Your task to perform on an android device: change notification settings in the gmail app Image 0: 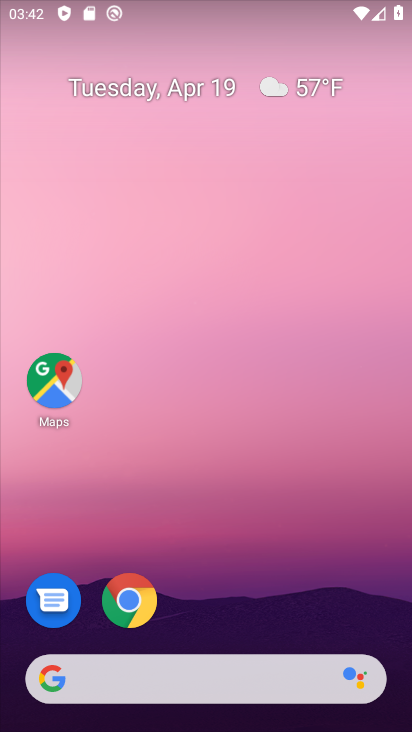
Step 0: drag from (348, 619) to (185, 56)
Your task to perform on an android device: change notification settings in the gmail app Image 1: 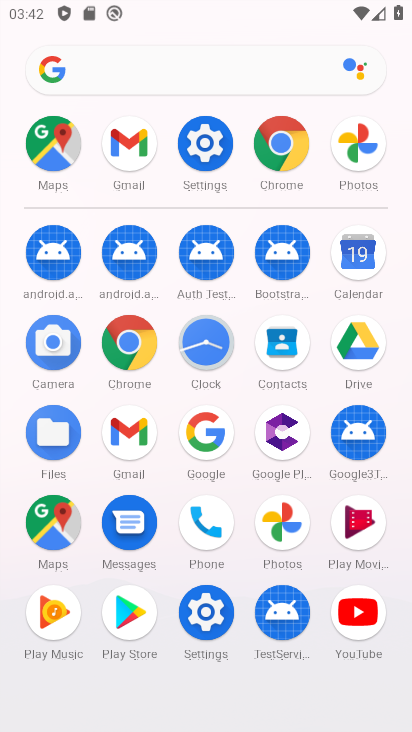
Step 1: click (142, 150)
Your task to perform on an android device: change notification settings in the gmail app Image 2: 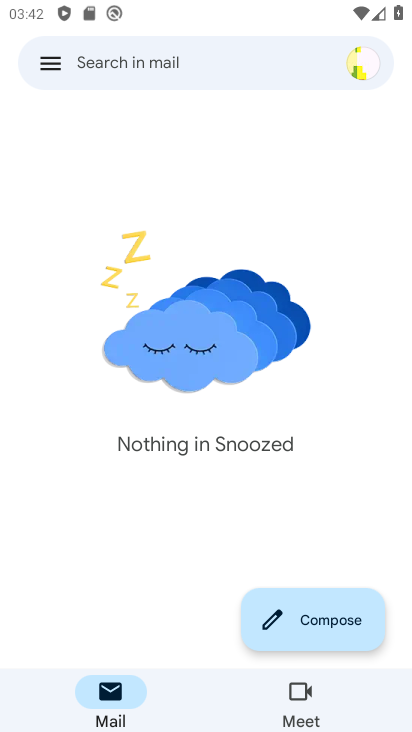
Step 2: click (55, 60)
Your task to perform on an android device: change notification settings in the gmail app Image 3: 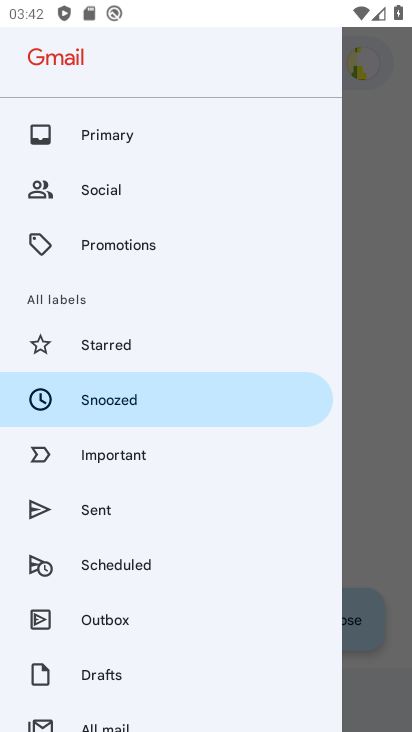
Step 3: drag from (286, 672) to (194, 193)
Your task to perform on an android device: change notification settings in the gmail app Image 4: 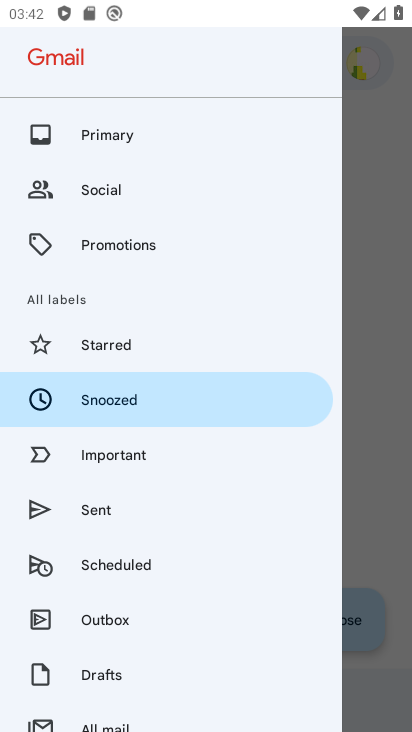
Step 4: drag from (109, 667) to (129, 186)
Your task to perform on an android device: change notification settings in the gmail app Image 5: 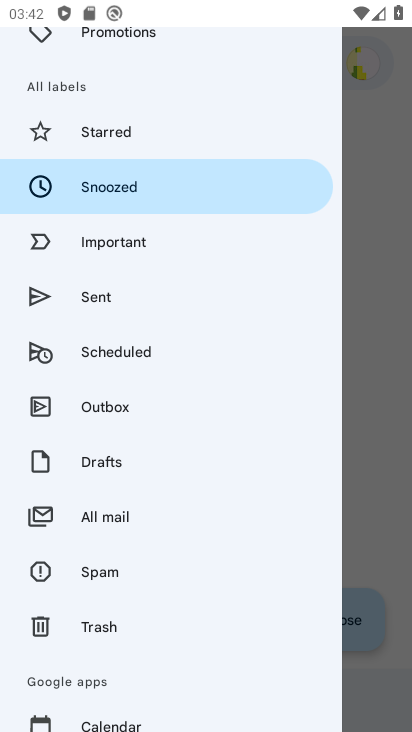
Step 5: drag from (216, 606) to (212, 137)
Your task to perform on an android device: change notification settings in the gmail app Image 6: 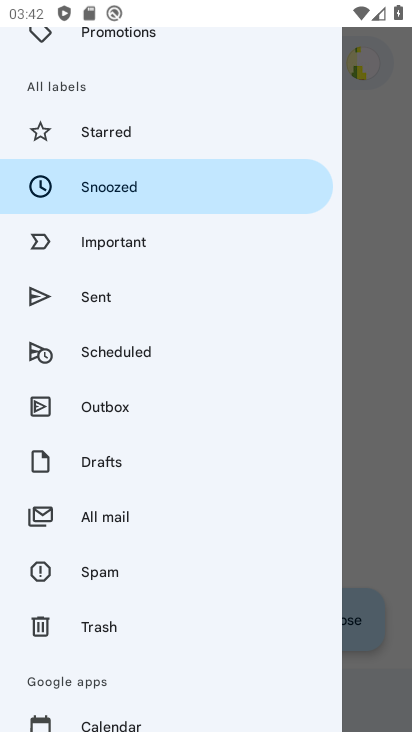
Step 6: drag from (116, 608) to (58, 156)
Your task to perform on an android device: change notification settings in the gmail app Image 7: 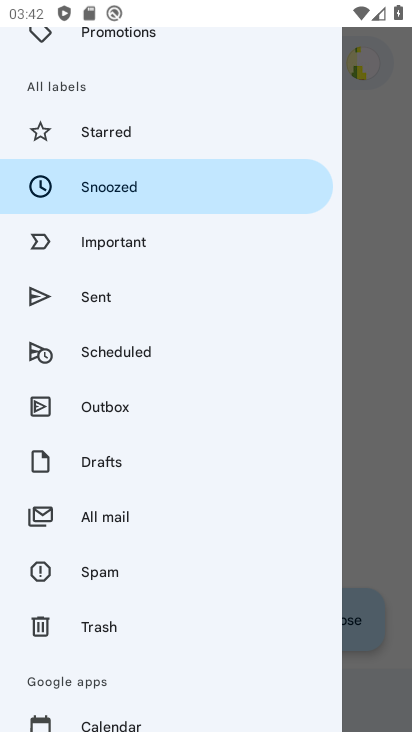
Step 7: drag from (121, 629) to (146, 161)
Your task to perform on an android device: change notification settings in the gmail app Image 8: 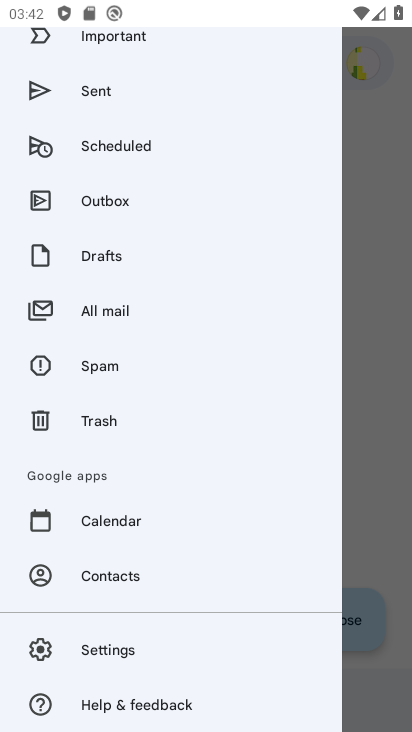
Step 8: click (151, 654)
Your task to perform on an android device: change notification settings in the gmail app Image 9: 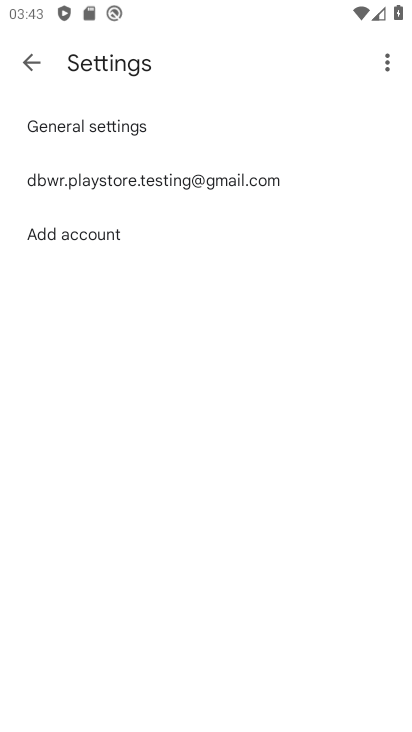
Step 9: click (249, 175)
Your task to perform on an android device: change notification settings in the gmail app Image 10: 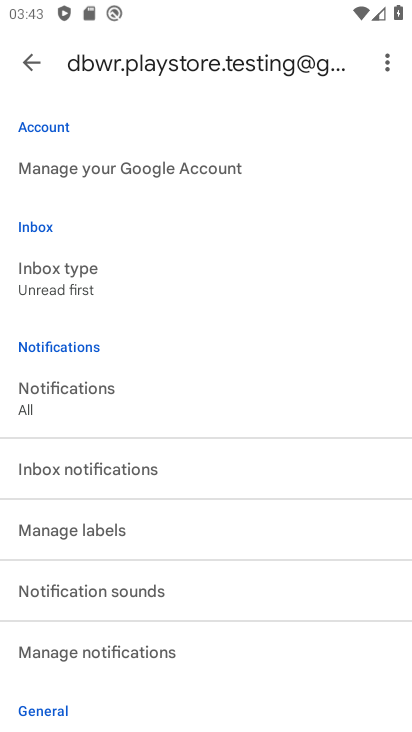
Step 10: drag from (296, 653) to (310, 322)
Your task to perform on an android device: change notification settings in the gmail app Image 11: 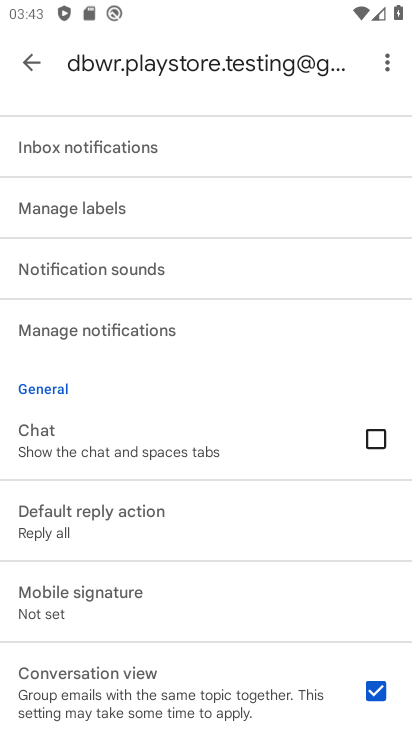
Step 11: click (238, 330)
Your task to perform on an android device: change notification settings in the gmail app Image 12: 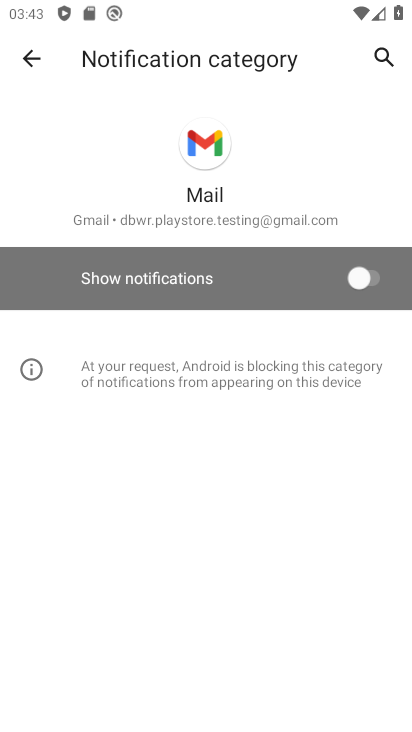
Step 12: click (374, 288)
Your task to perform on an android device: change notification settings in the gmail app Image 13: 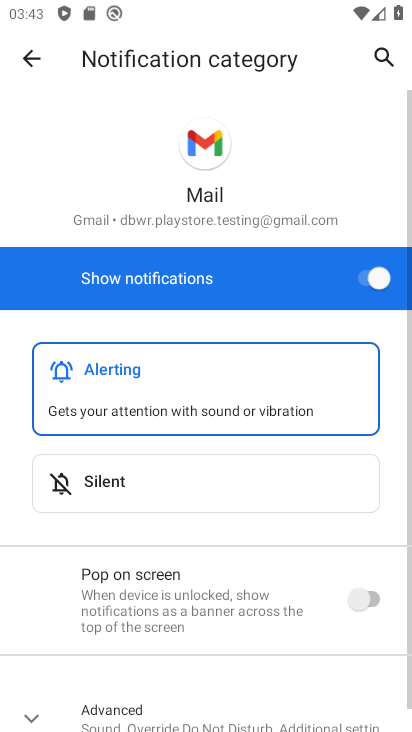
Step 13: click (333, 489)
Your task to perform on an android device: change notification settings in the gmail app Image 14: 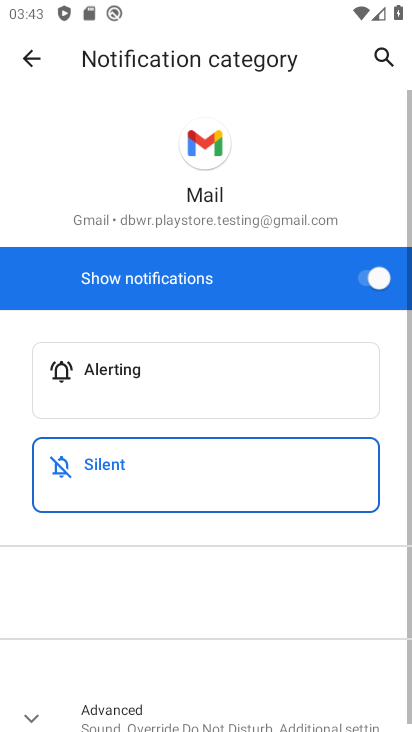
Step 14: click (379, 595)
Your task to perform on an android device: change notification settings in the gmail app Image 15: 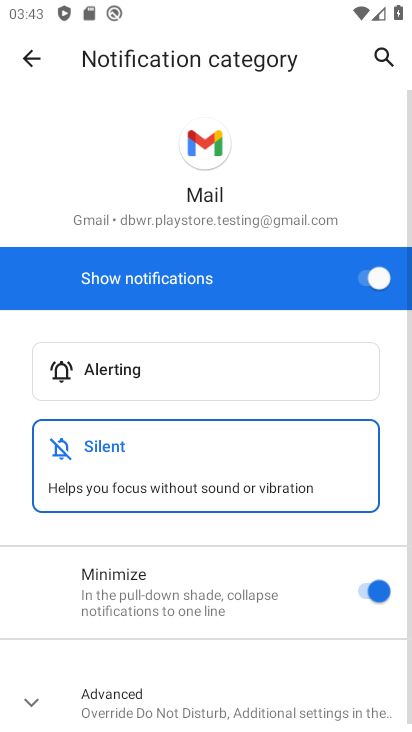
Step 15: task complete